Your task to perform on an android device: Empty the shopping cart on ebay. Search for duracell triple a on ebay, select the first entry, add it to the cart, then select checkout. Image 0: 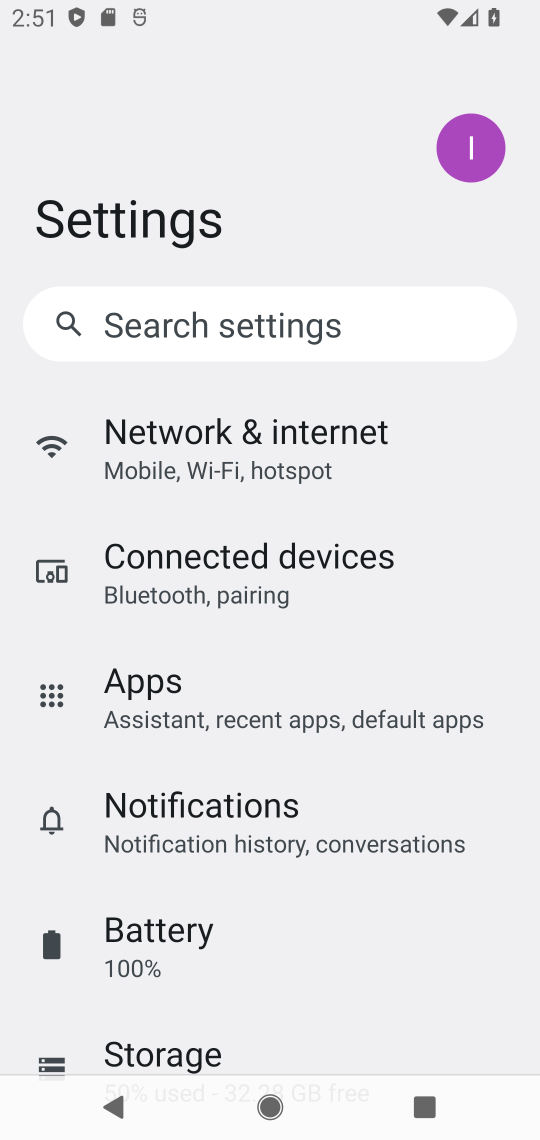
Step 0: press home button
Your task to perform on an android device: Empty the shopping cart on ebay. Search for duracell triple a on ebay, select the first entry, add it to the cart, then select checkout. Image 1: 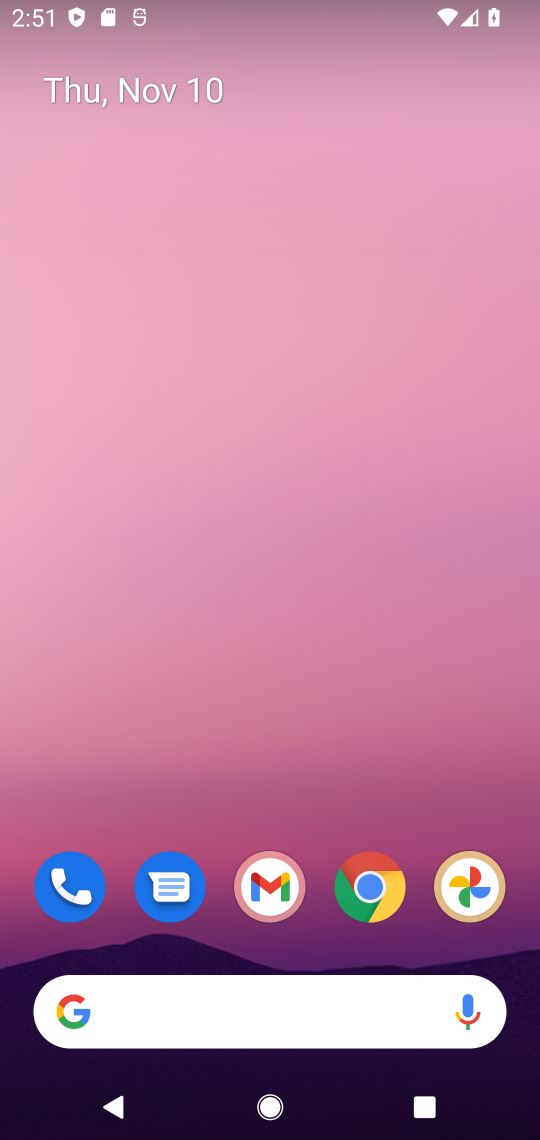
Step 1: drag from (324, 944) to (426, 2)
Your task to perform on an android device: Empty the shopping cart on ebay. Search for duracell triple a on ebay, select the first entry, add it to the cart, then select checkout. Image 2: 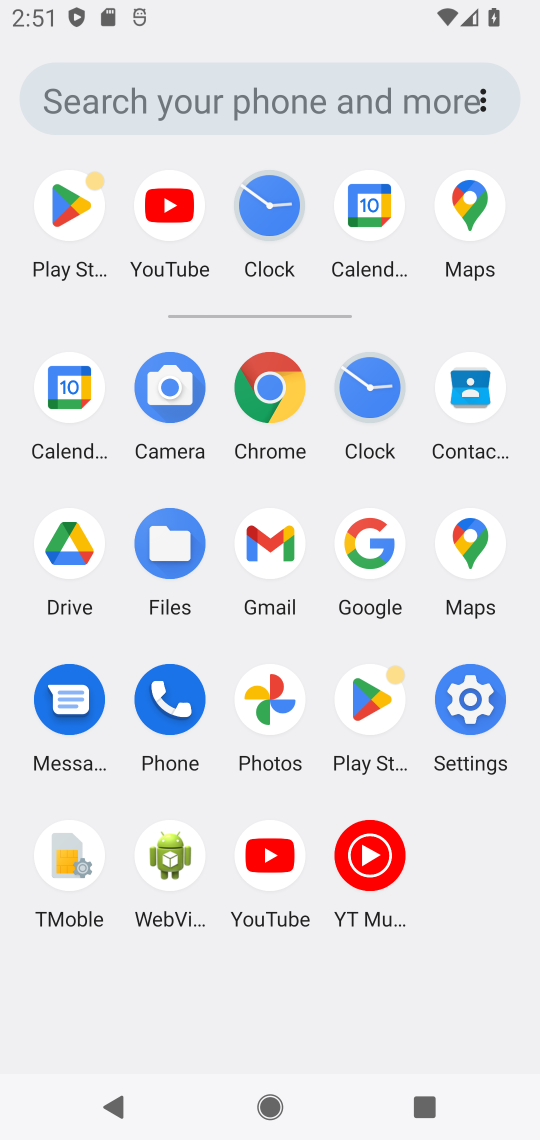
Step 2: click (271, 388)
Your task to perform on an android device: Empty the shopping cart on ebay. Search for duracell triple a on ebay, select the first entry, add it to the cart, then select checkout. Image 3: 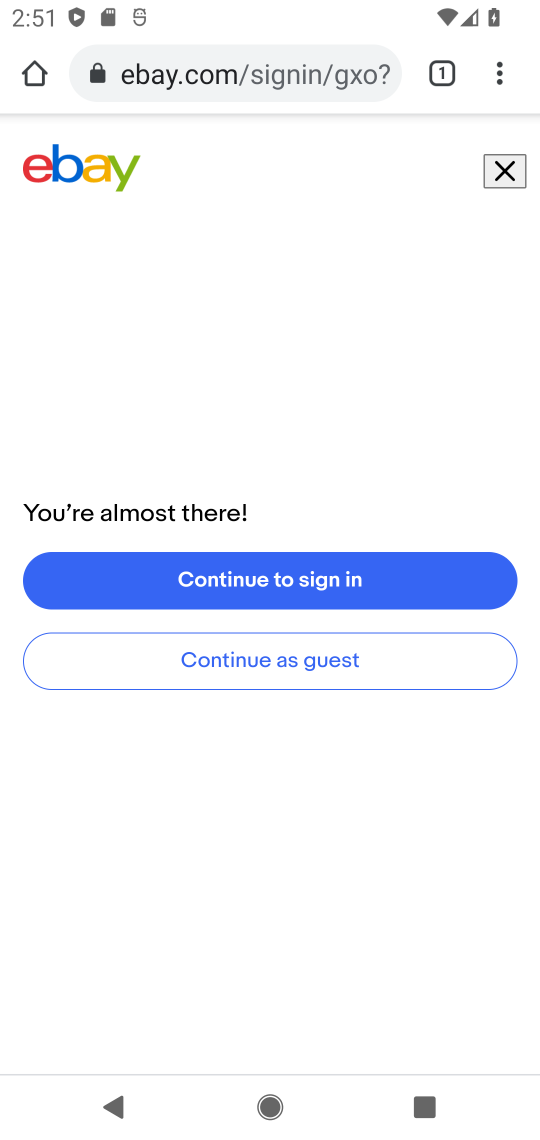
Step 3: click (298, 77)
Your task to perform on an android device: Empty the shopping cart on ebay. Search for duracell triple a on ebay, select the first entry, add it to the cart, then select checkout. Image 4: 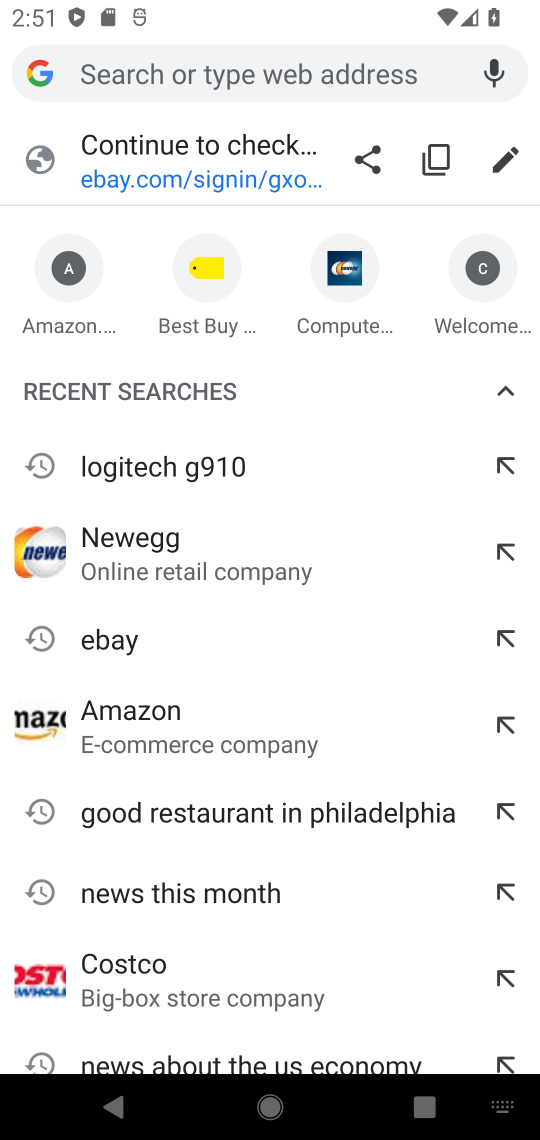
Step 4: type "ebay.com"
Your task to perform on an android device: Empty the shopping cart on ebay. Search for duracell triple a on ebay, select the first entry, add it to the cart, then select checkout. Image 5: 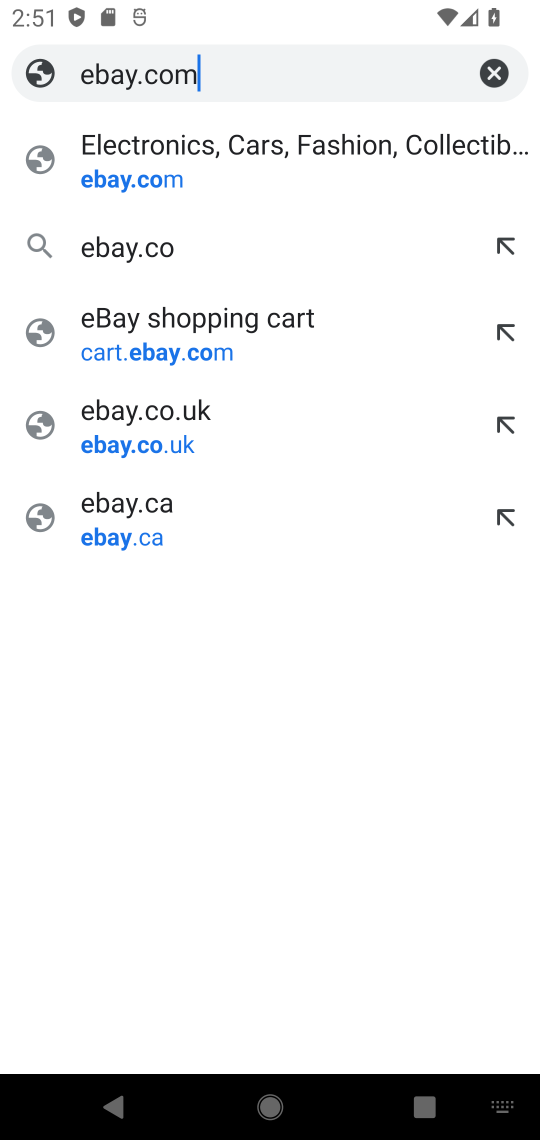
Step 5: press enter
Your task to perform on an android device: Empty the shopping cart on ebay. Search for duracell triple a on ebay, select the first entry, add it to the cart, then select checkout. Image 6: 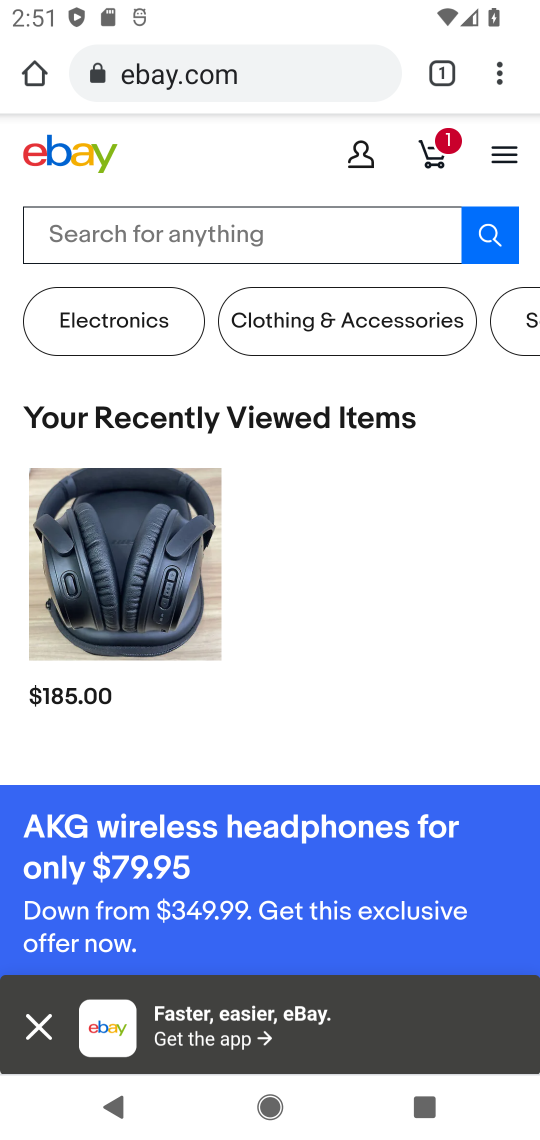
Step 6: click (455, 153)
Your task to perform on an android device: Empty the shopping cart on ebay. Search for duracell triple a on ebay, select the first entry, add it to the cart, then select checkout. Image 7: 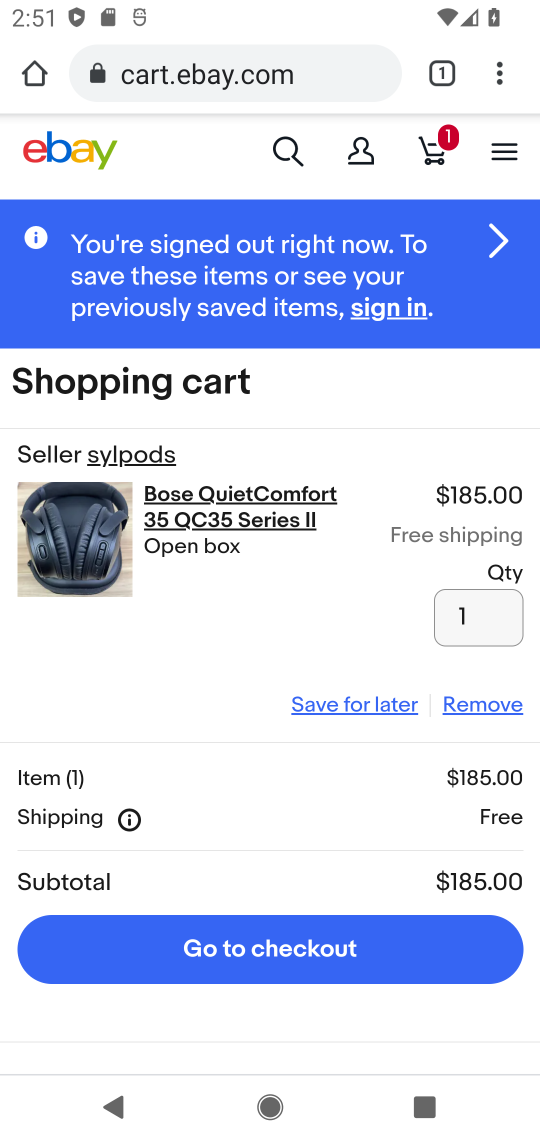
Step 7: click (460, 710)
Your task to perform on an android device: Empty the shopping cart on ebay. Search for duracell triple a on ebay, select the first entry, add it to the cart, then select checkout. Image 8: 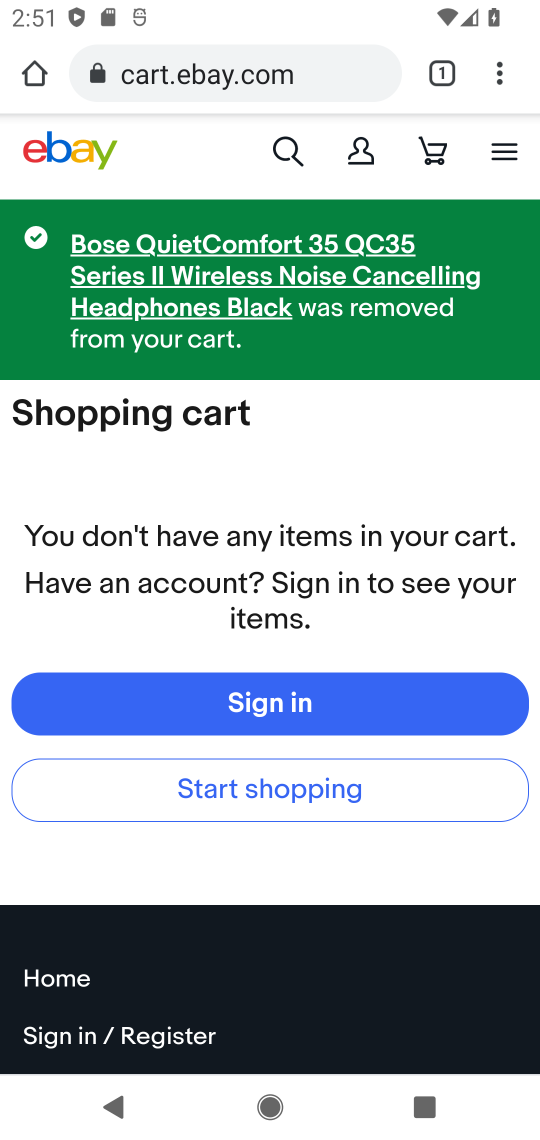
Step 8: click (293, 147)
Your task to perform on an android device: Empty the shopping cart on ebay. Search for duracell triple a on ebay, select the first entry, add it to the cart, then select checkout. Image 9: 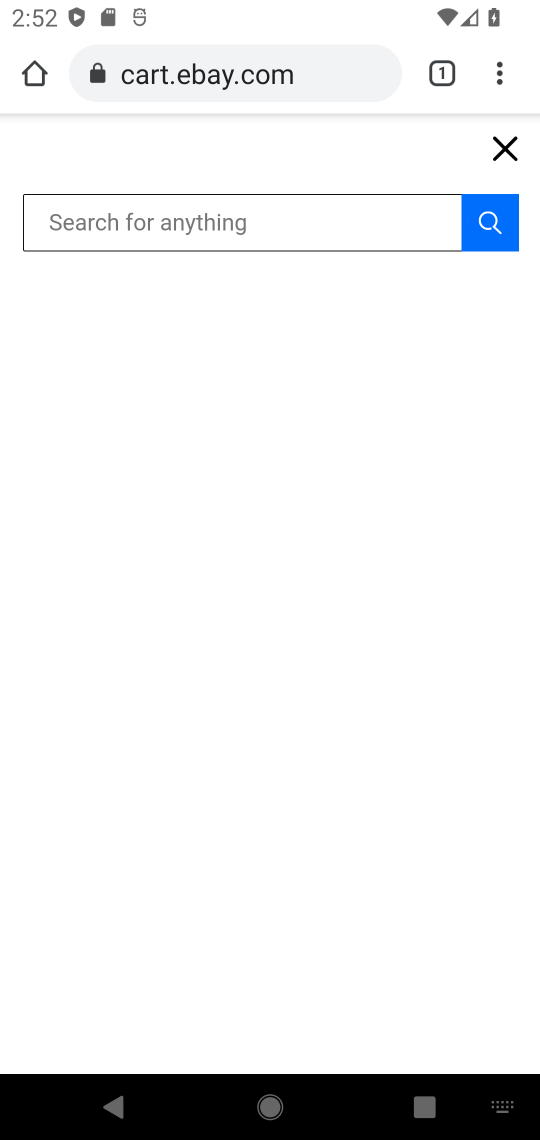
Step 9: type "duracell triple a"
Your task to perform on an android device: Empty the shopping cart on ebay. Search for duracell triple a on ebay, select the first entry, add it to the cart, then select checkout. Image 10: 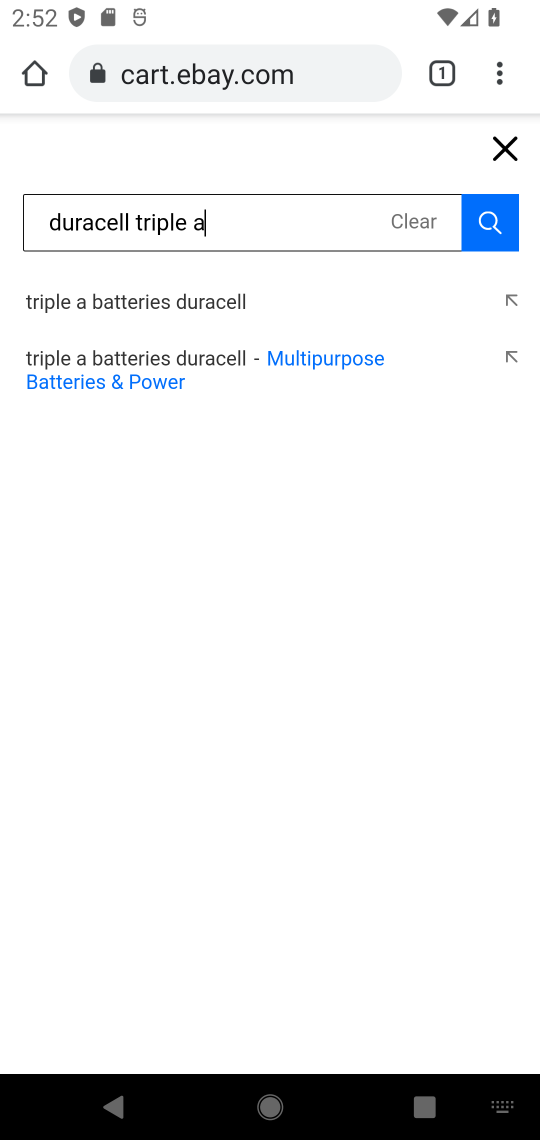
Step 10: press enter
Your task to perform on an android device: Empty the shopping cart on ebay. Search for duracell triple a on ebay, select the first entry, add it to the cart, then select checkout. Image 11: 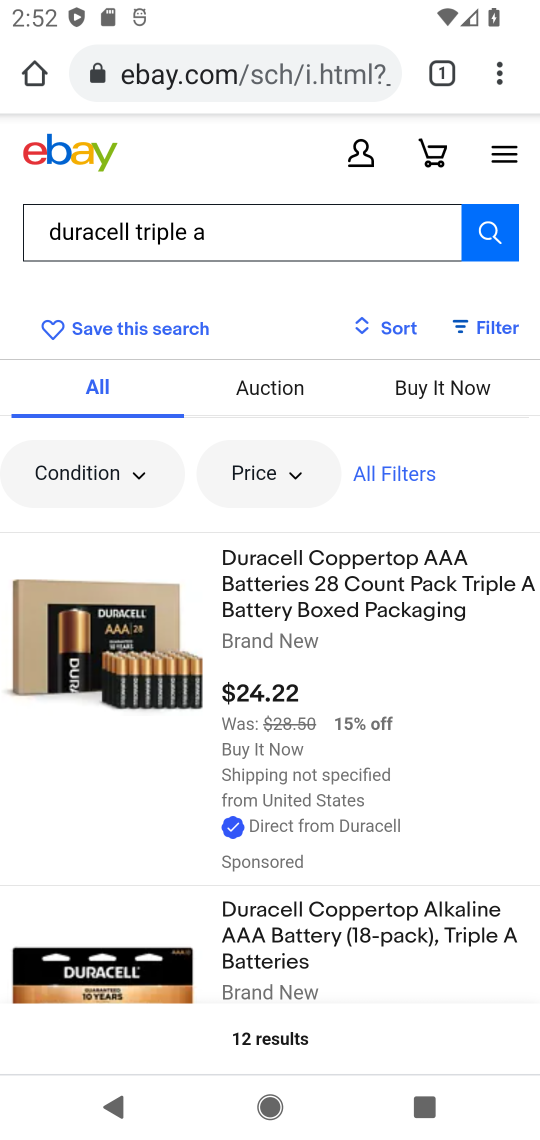
Step 11: click (387, 606)
Your task to perform on an android device: Empty the shopping cart on ebay. Search for duracell triple a on ebay, select the first entry, add it to the cart, then select checkout. Image 12: 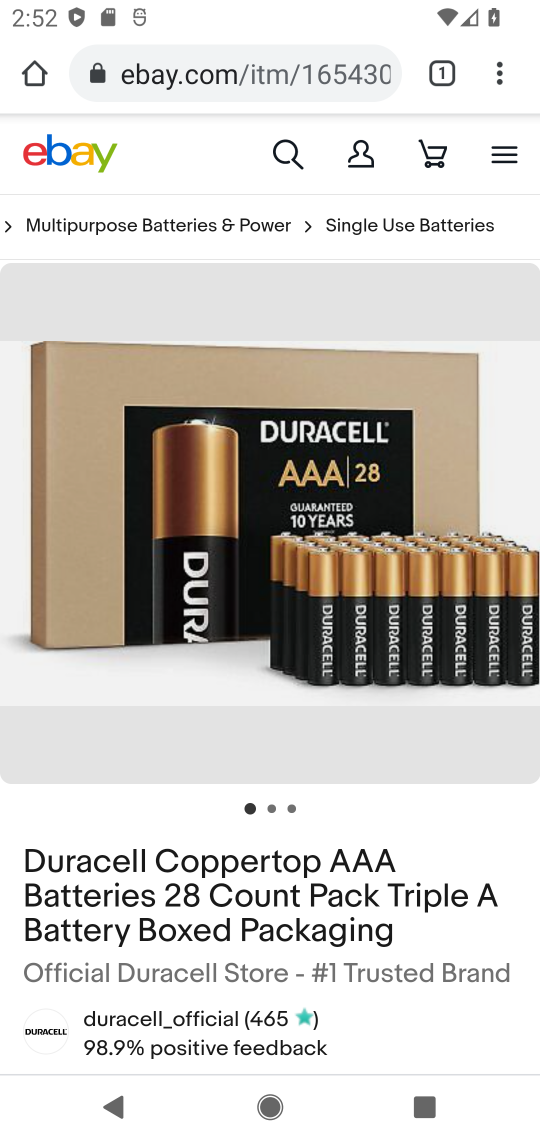
Step 12: drag from (323, 822) to (340, 189)
Your task to perform on an android device: Empty the shopping cart on ebay. Search for duracell triple a on ebay, select the first entry, add it to the cart, then select checkout. Image 13: 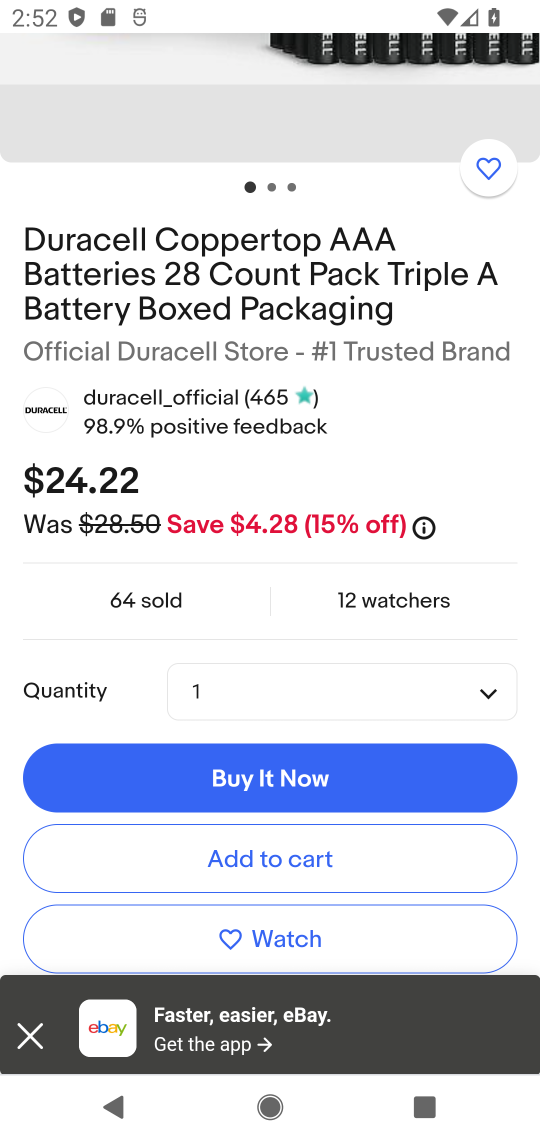
Step 13: click (308, 865)
Your task to perform on an android device: Empty the shopping cart on ebay. Search for duracell triple a on ebay, select the first entry, add it to the cart, then select checkout. Image 14: 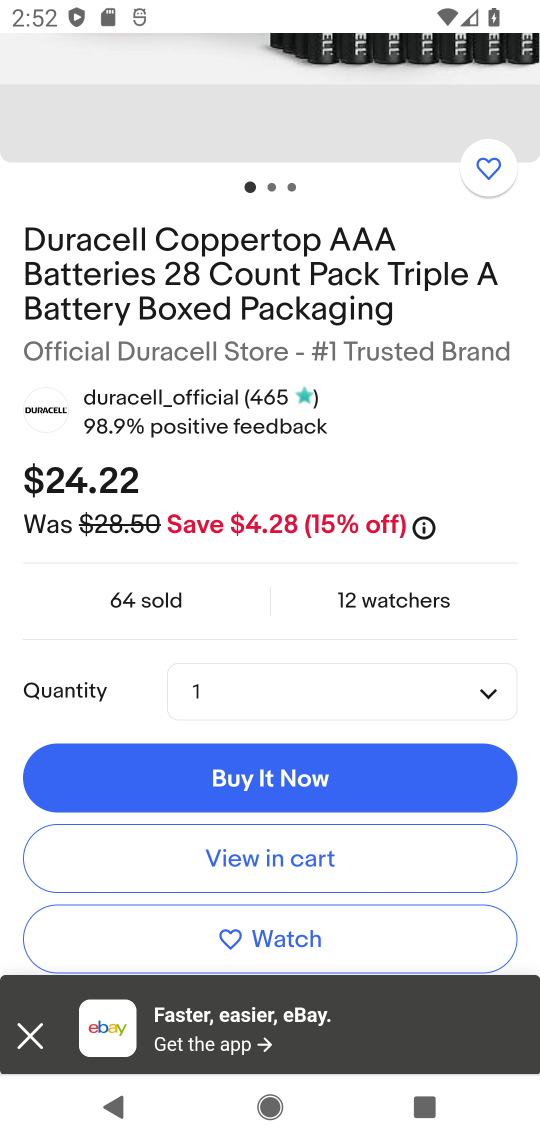
Step 14: click (308, 865)
Your task to perform on an android device: Empty the shopping cart on ebay. Search for duracell triple a on ebay, select the first entry, add it to the cart, then select checkout. Image 15: 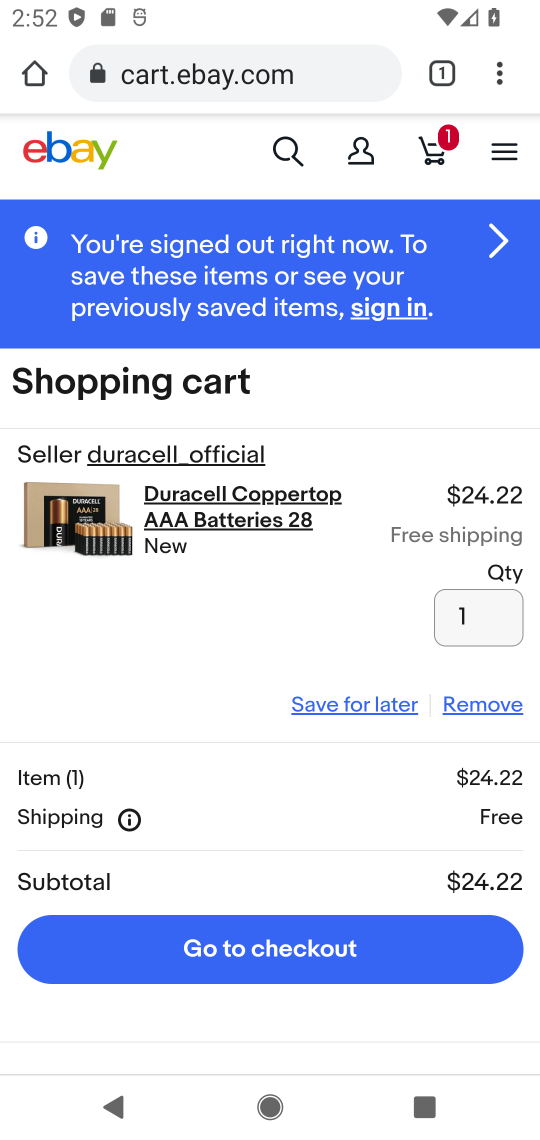
Step 15: click (306, 936)
Your task to perform on an android device: Empty the shopping cart on ebay. Search for duracell triple a on ebay, select the first entry, add it to the cart, then select checkout. Image 16: 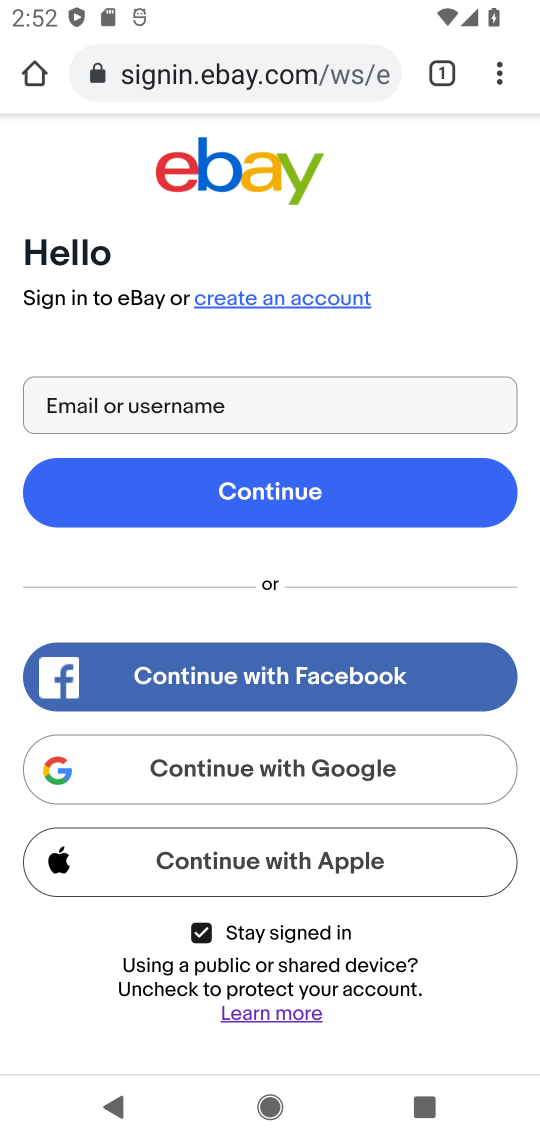
Step 16: task complete